Your task to perform on an android device: Open Google Chrome and open the bookmarks view Image 0: 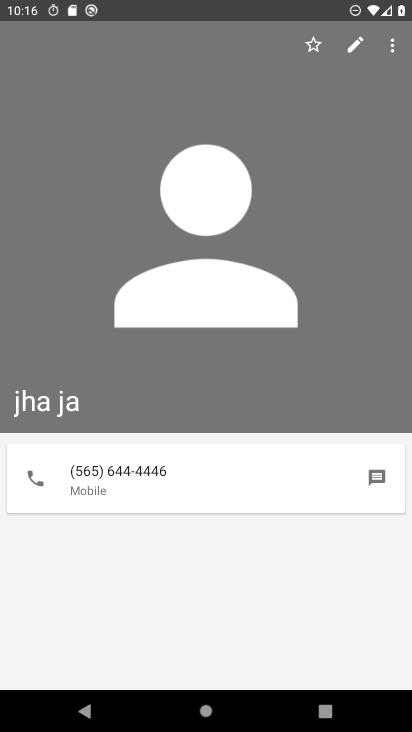
Step 0: press home button
Your task to perform on an android device: Open Google Chrome and open the bookmarks view Image 1: 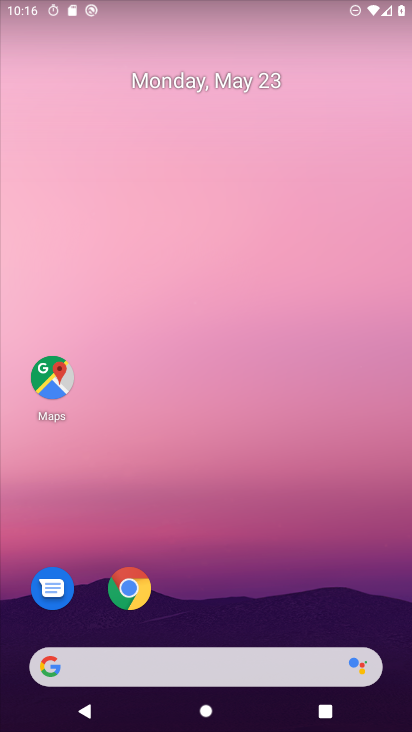
Step 1: click (132, 584)
Your task to perform on an android device: Open Google Chrome and open the bookmarks view Image 2: 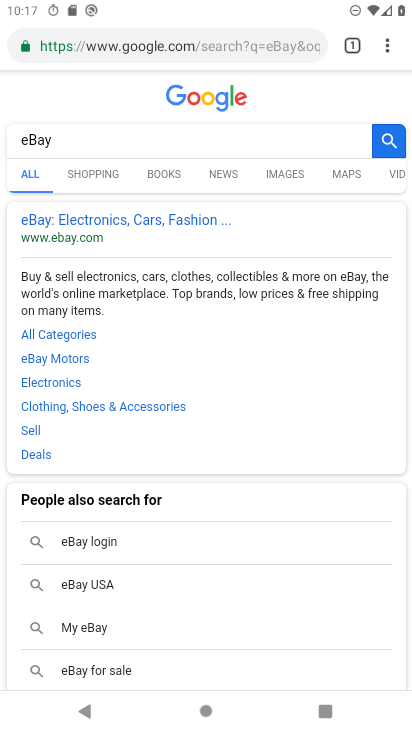
Step 2: click (386, 46)
Your task to perform on an android device: Open Google Chrome and open the bookmarks view Image 3: 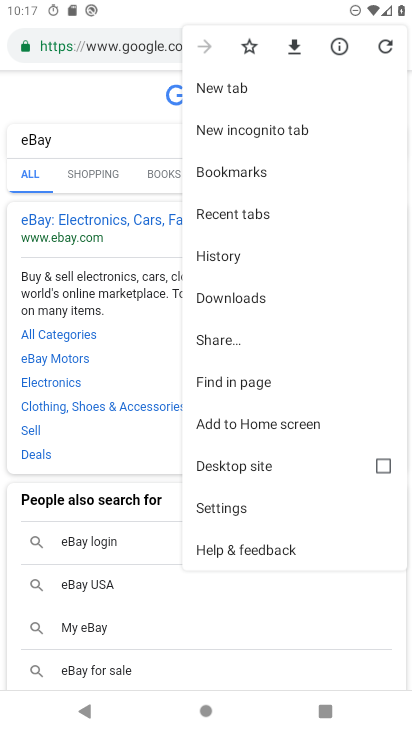
Step 3: click (243, 174)
Your task to perform on an android device: Open Google Chrome and open the bookmarks view Image 4: 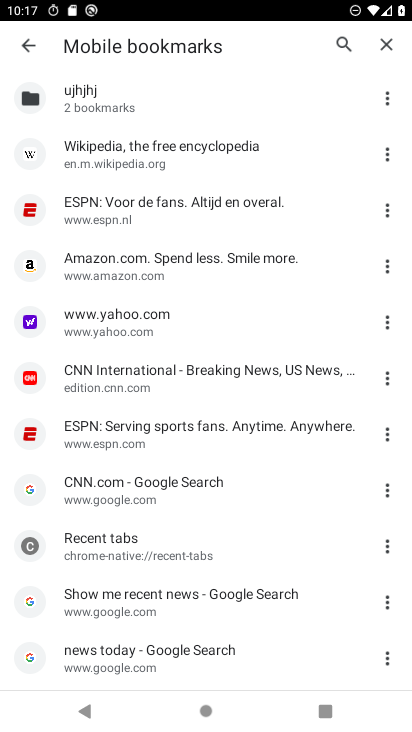
Step 4: task complete